Your task to perform on an android device: What's the news in Bangladesh? Image 0: 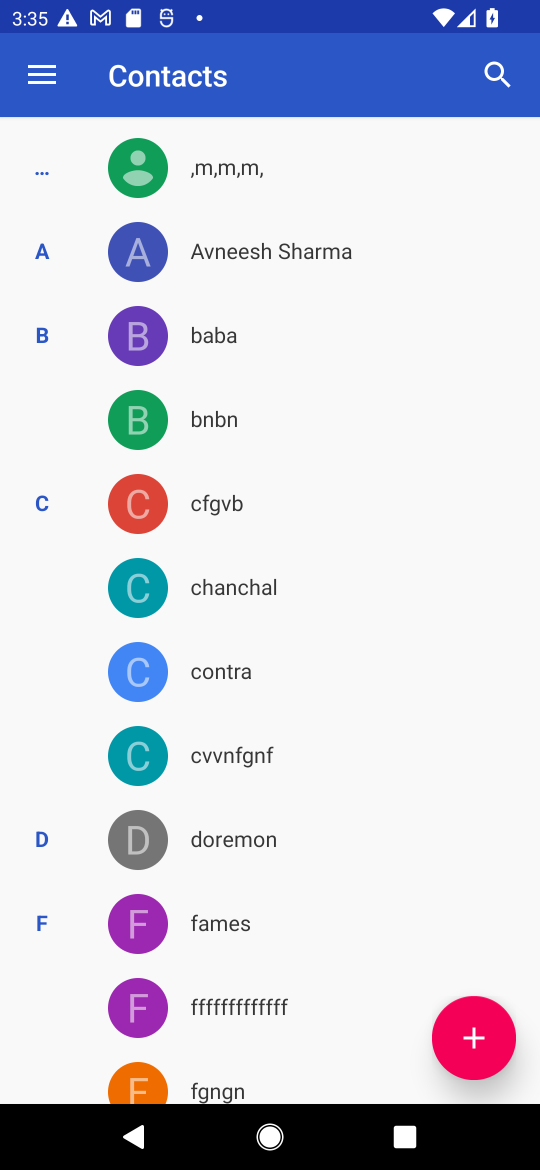
Step 0: press home button
Your task to perform on an android device: What's the news in Bangladesh? Image 1: 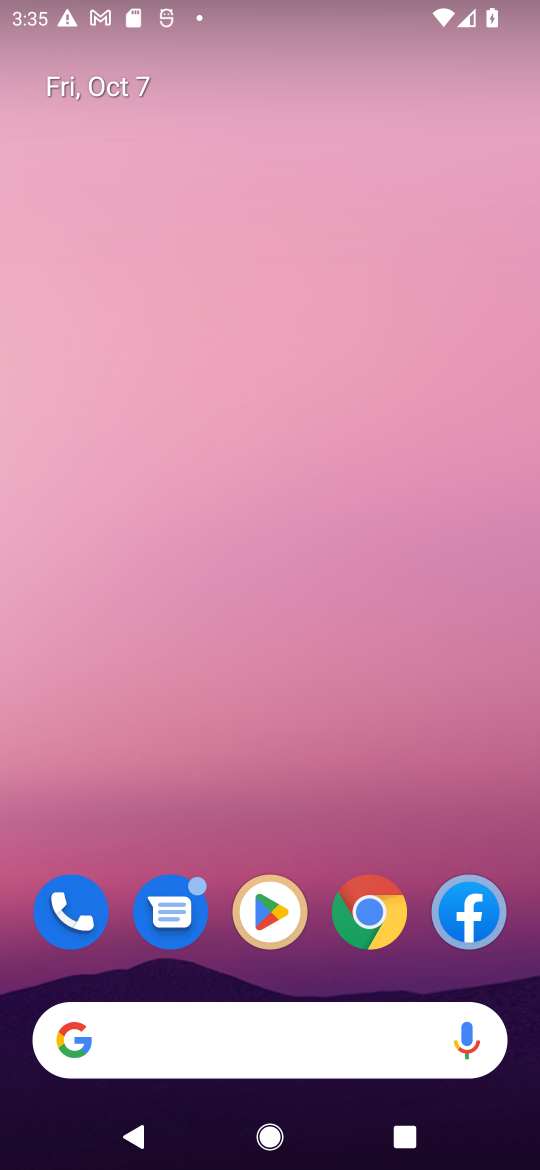
Step 1: drag from (193, 925) to (255, 306)
Your task to perform on an android device: What's the news in Bangladesh? Image 2: 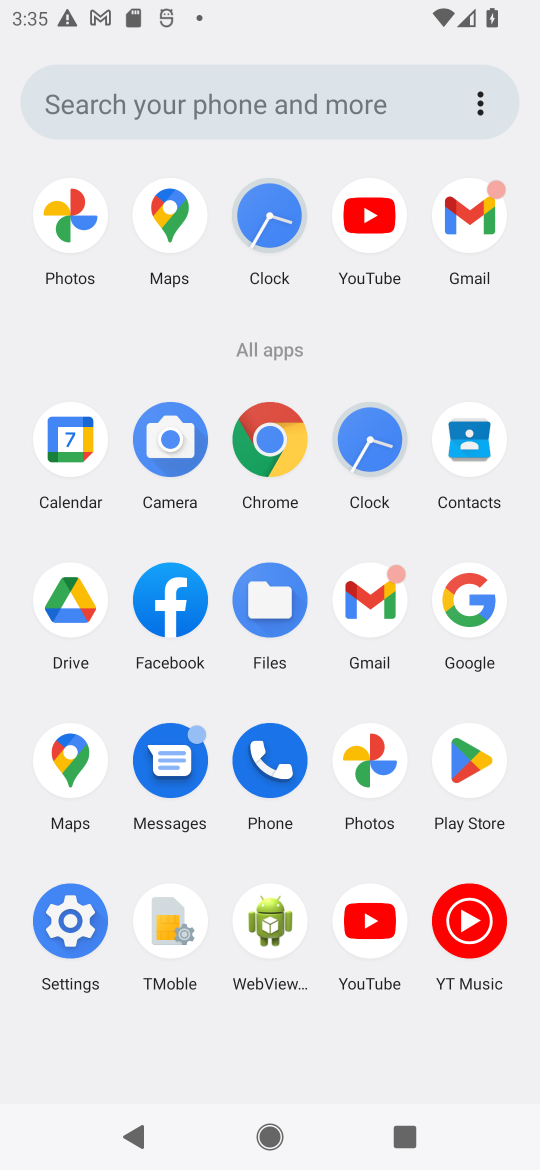
Step 2: click (450, 591)
Your task to perform on an android device: What's the news in Bangladesh? Image 3: 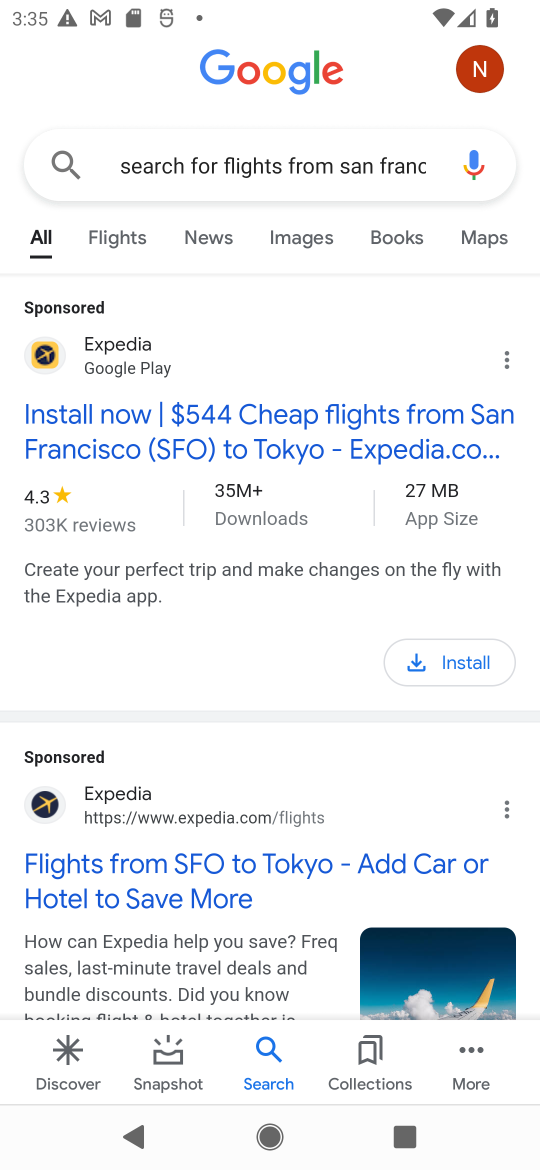
Step 3: click (419, 174)
Your task to perform on an android device: What's the news in Bangladesh? Image 4: 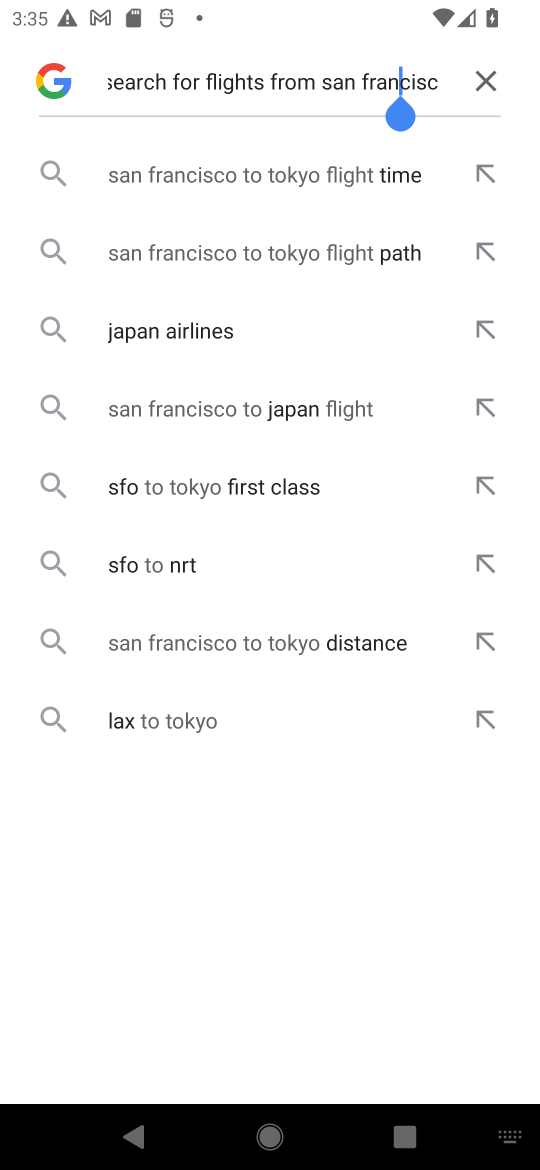
Step 4: click (479, 70)
Your task to perform on an android device: What's the news in Bangladesh? Image 5: 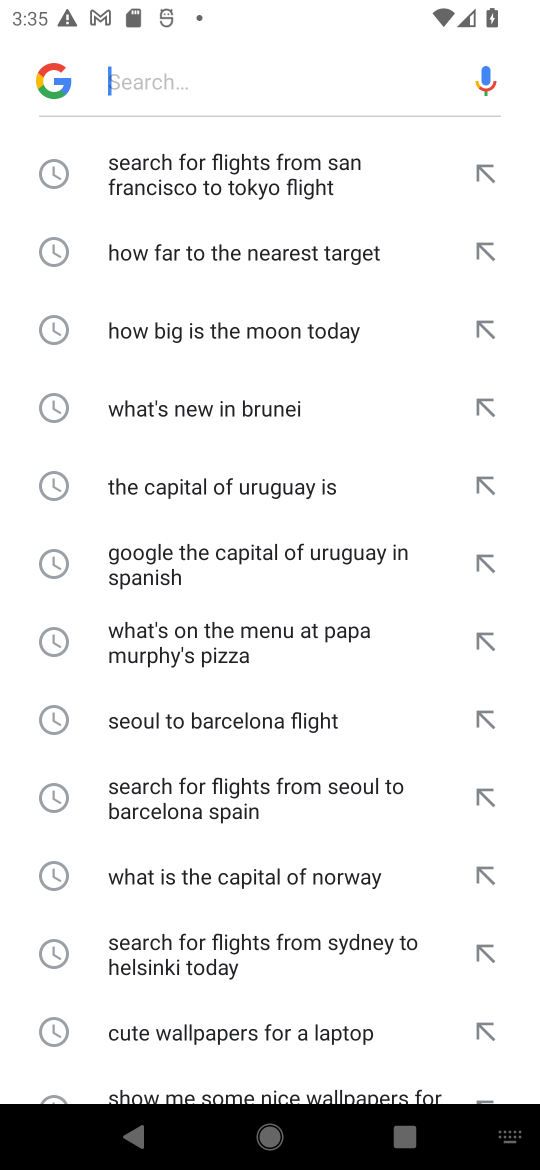
Step 5: click (295, 69)
Your task to perform on an android device: What's the news in Bangladesh? Image 6: 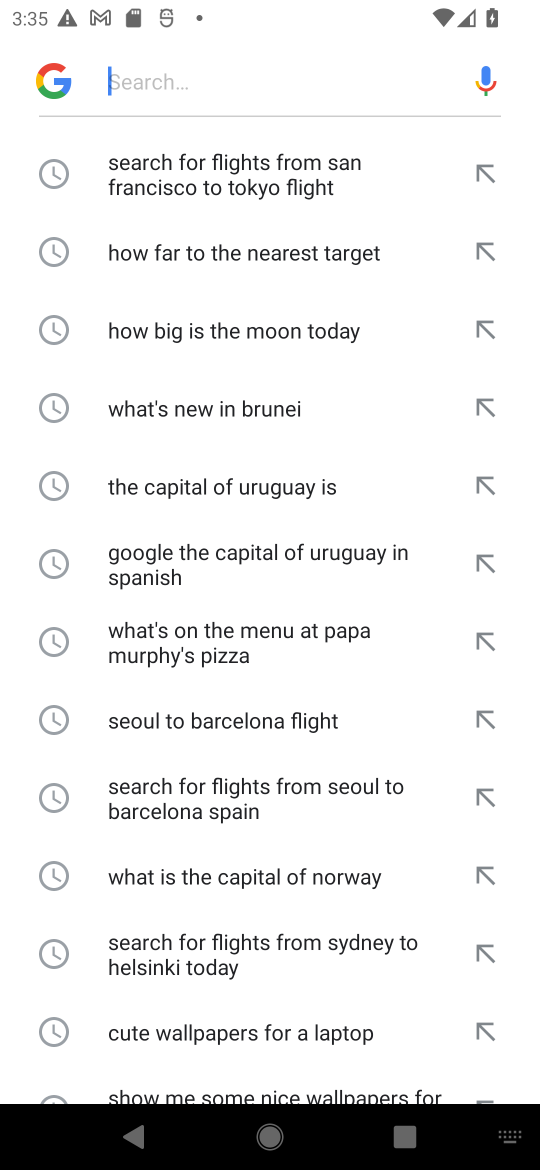
Step 6: type "What's the news in Bangladesh? "
Your task to perform on an android device: What's the news in Bangladesh? Image 7: 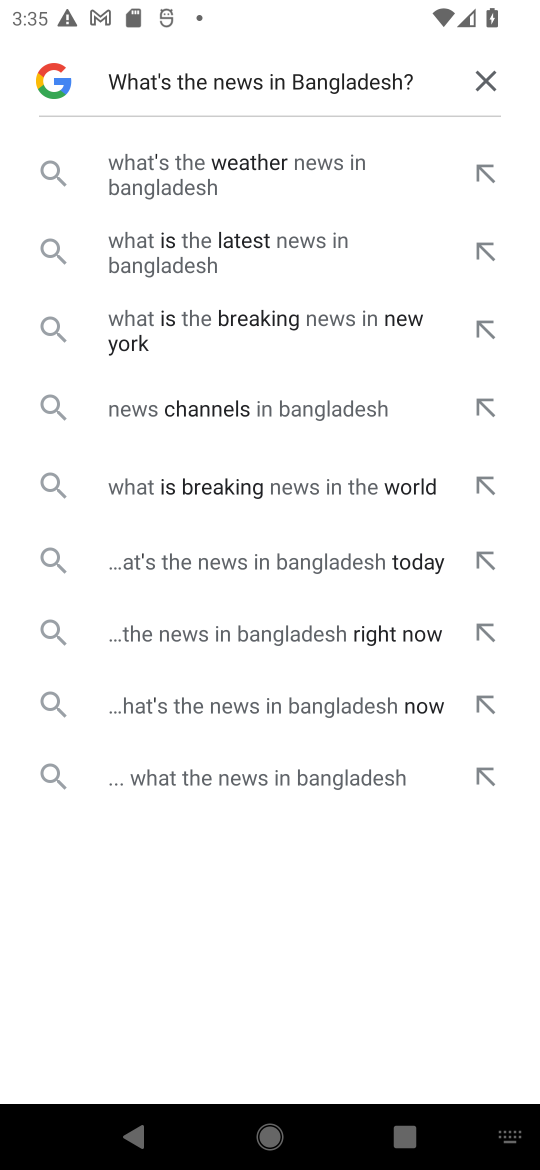
Step 7: click (238, 342)
Your task to perform on an android device: What's the news in Bangladesh? Image 8: 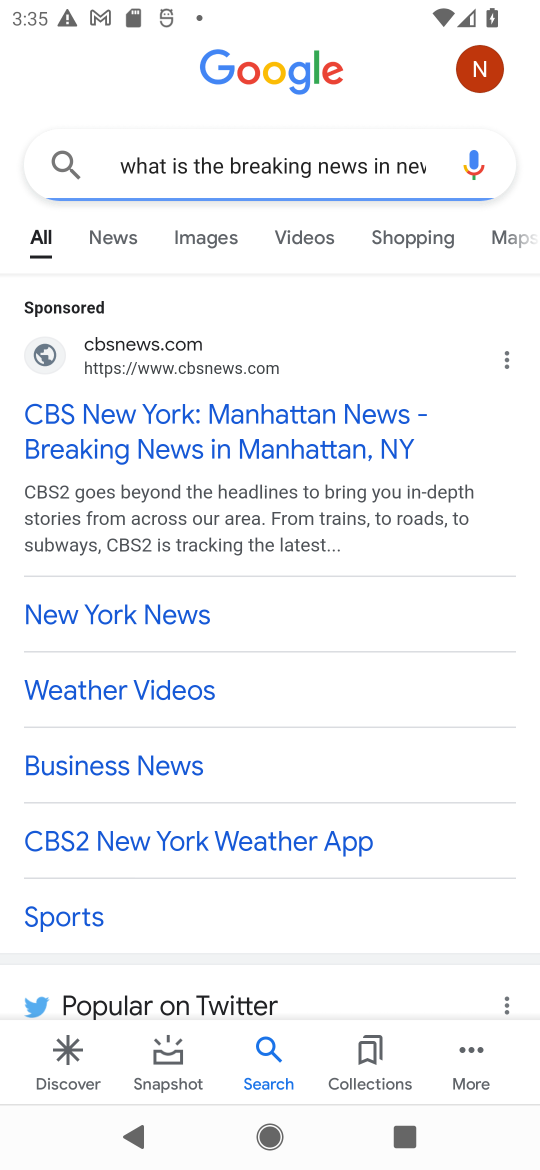
Step 8: click (385, 166)
Your task to perform on an android device: What's the news in Bangladesh? Image 9: 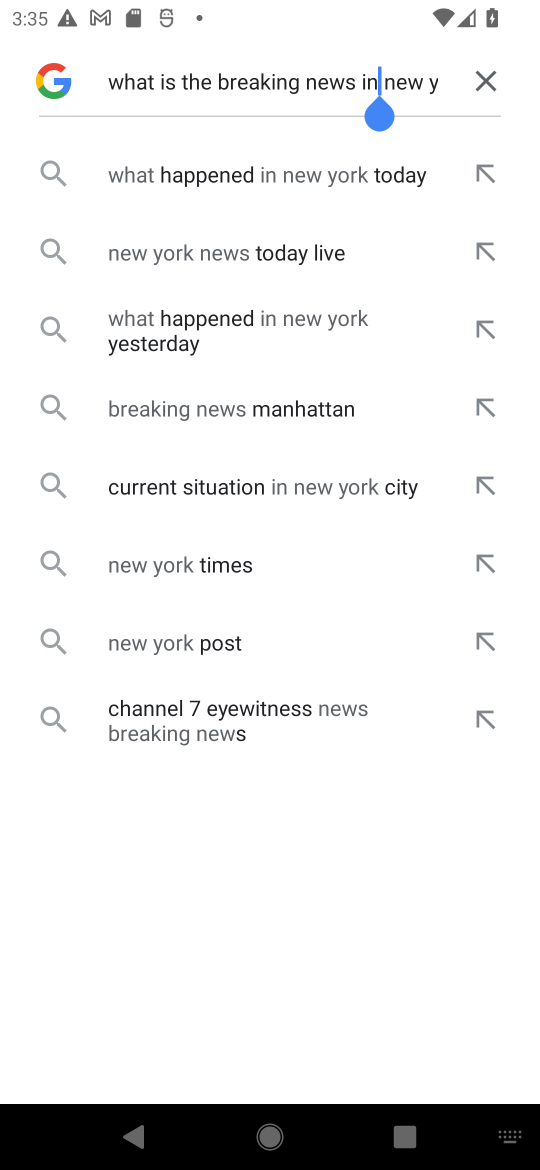
Step 9: click (479, 84)
Your task to perform on an android device: What's the news in Bangladesh? Image 10: 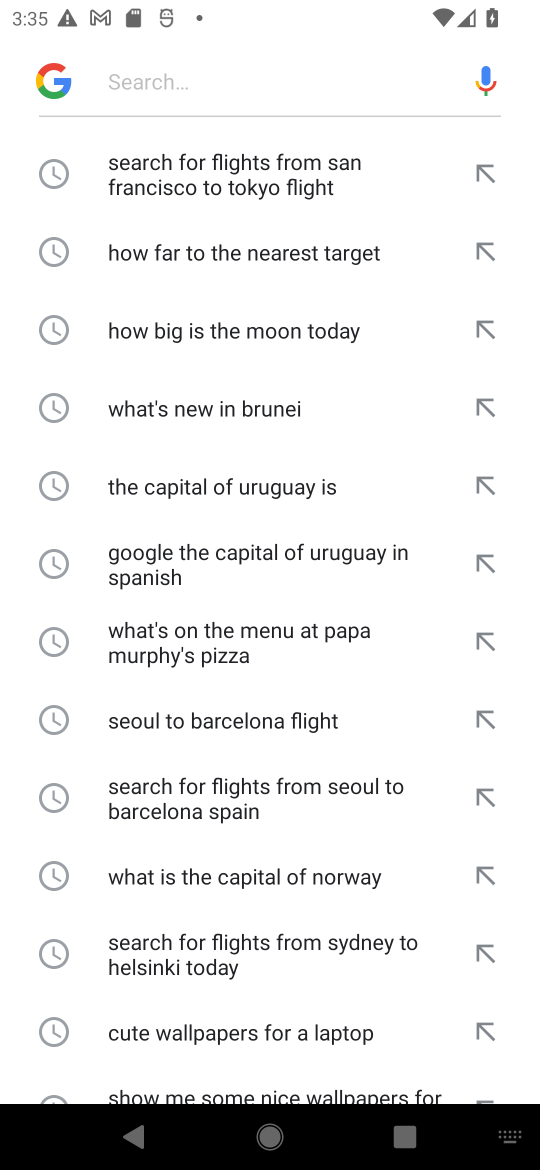
Step 10: click (305, 84)
Your task to perform on an android device: What's the news in Bangladesh? Image 11: 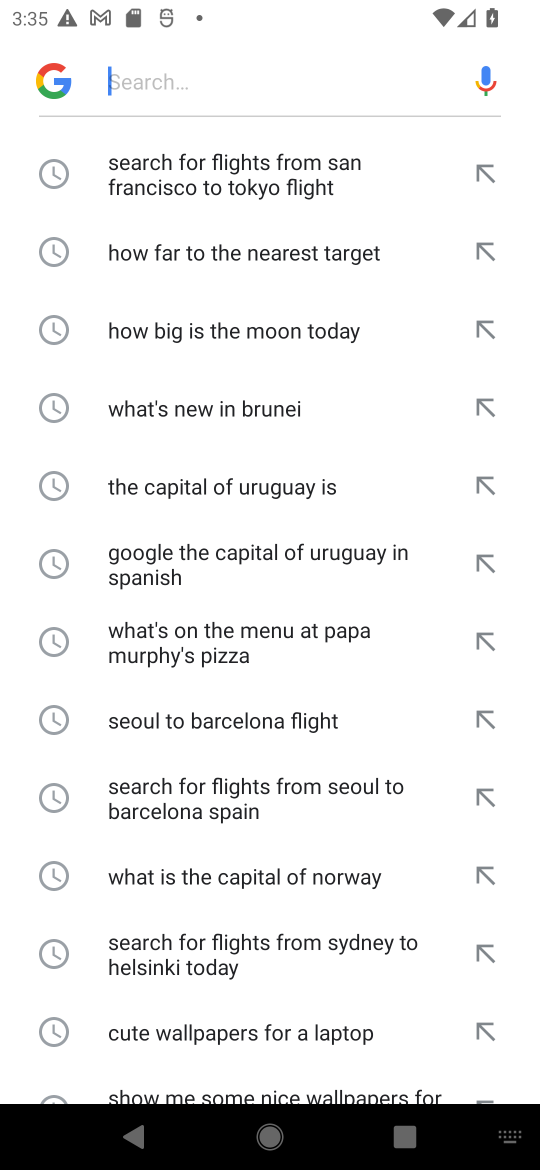
Step 11: type "What's the news in Bangladesh? "
Your task to perform on an android device: What's the news in Bangladesh? Image 12: 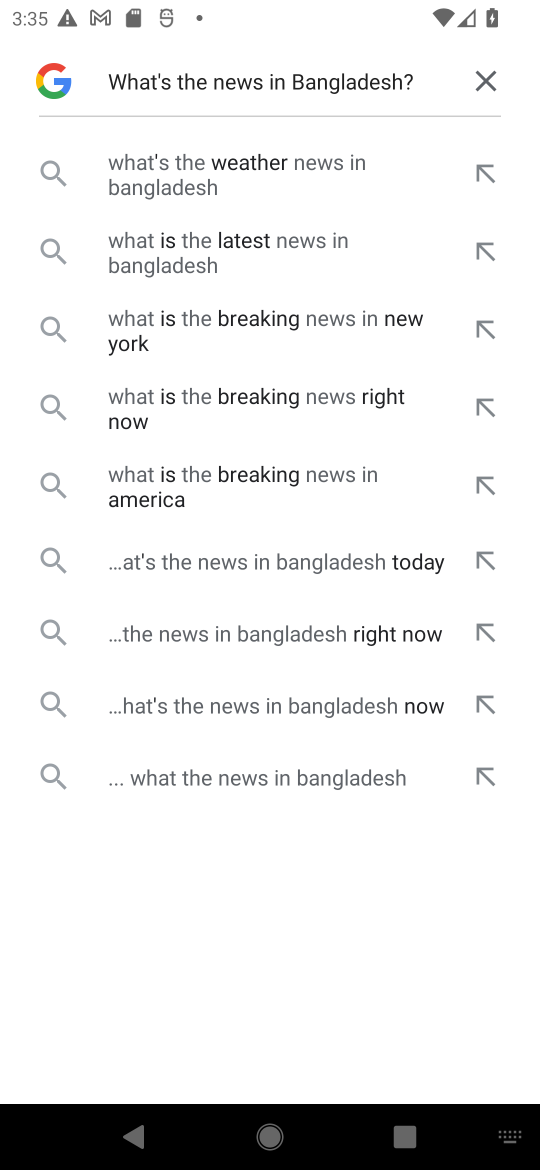
Step 12: click (255, 633)
Your task to perform on an android device: What's the news in Bangladesh? Image 13: 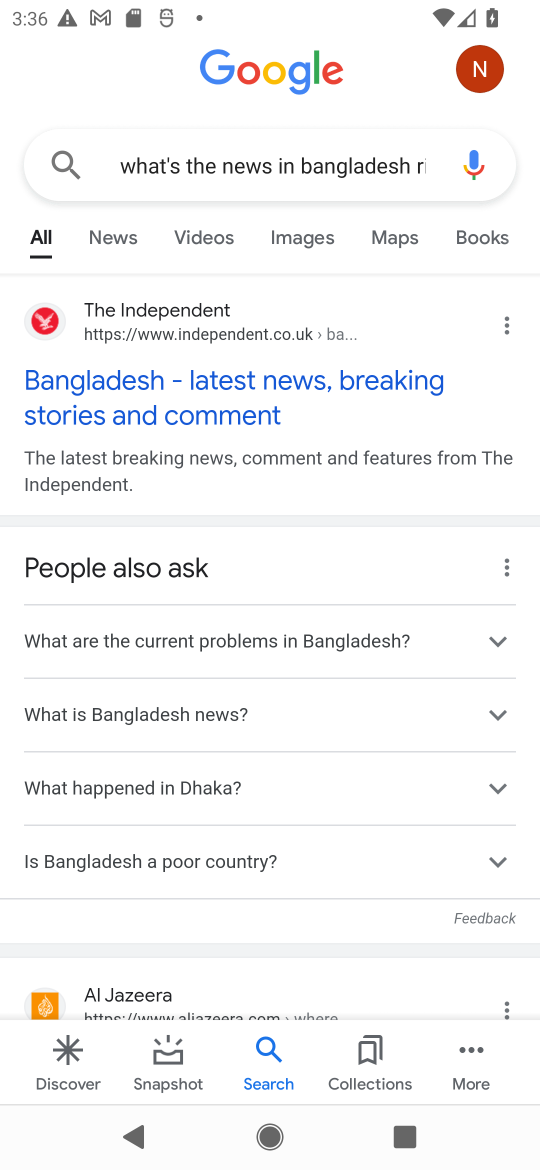
Step 13: click (156, 390)
Your task to perform on an android device: What's the news in Bangladesh? Image 14: 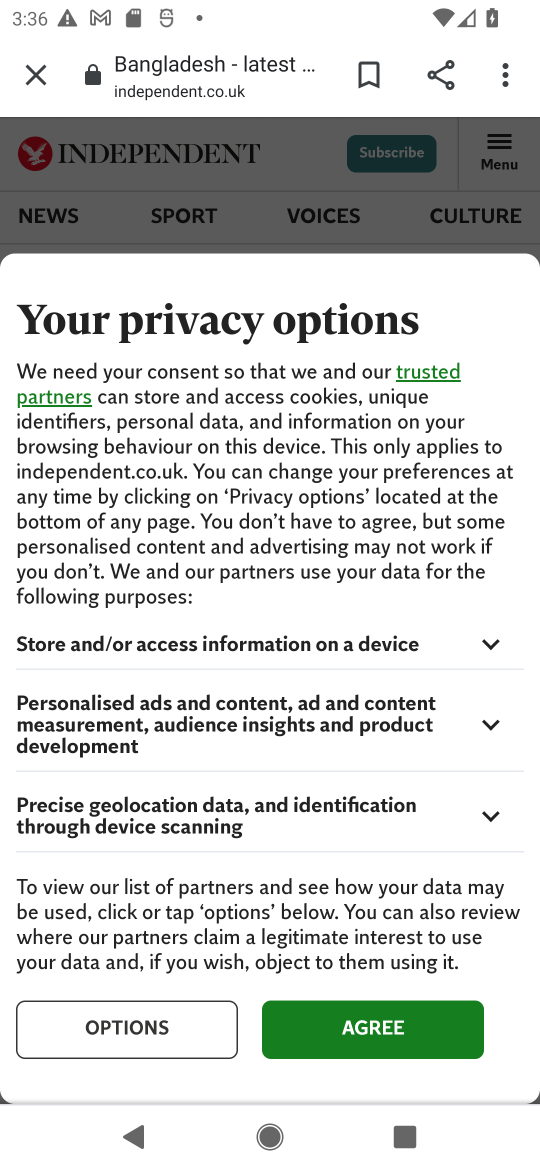
Step 14: click (295, 1021)
Your task to perform on an android device: What's the news in Bangladesh? Image 15: 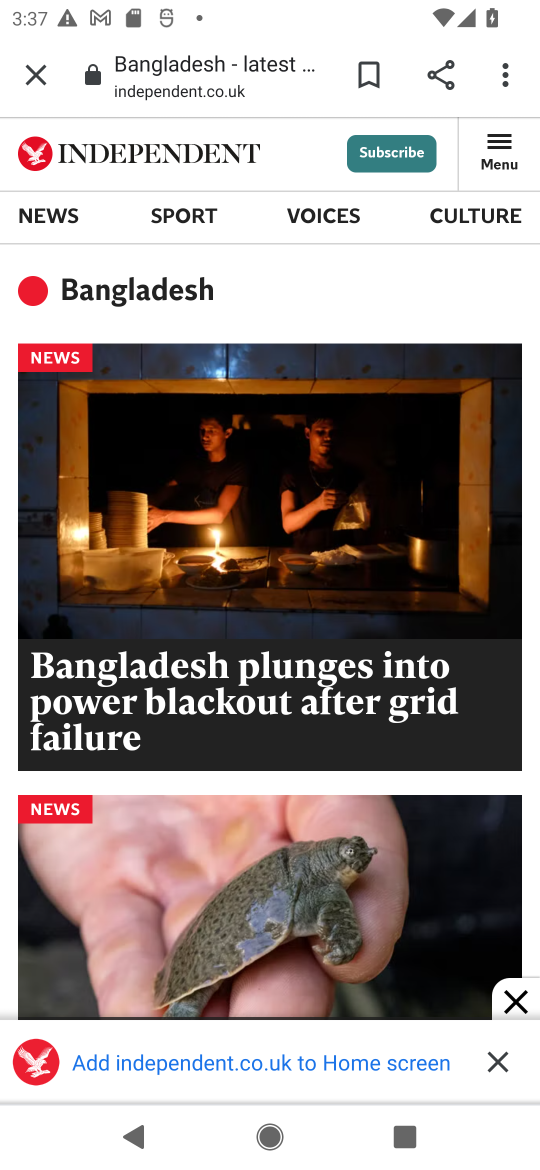
Step 15: task complete